Your task to perform on an android device: all mails in gmail Image 0: 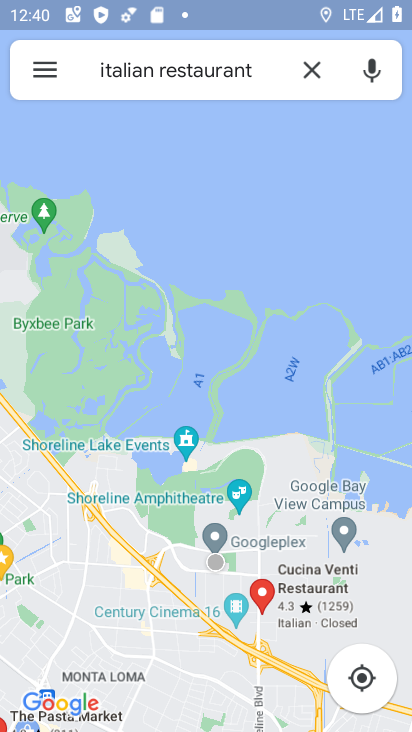
Step 0: drag from (186, 623) to (158, 281)
Your task to perform on an android device: all mails in gmail Image 1: 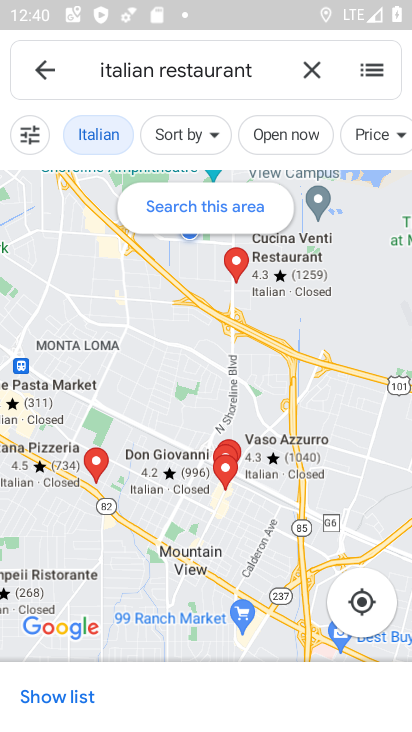
Step 1: press home button
Your task to perform on an android device: all mails in gmail Image 2: 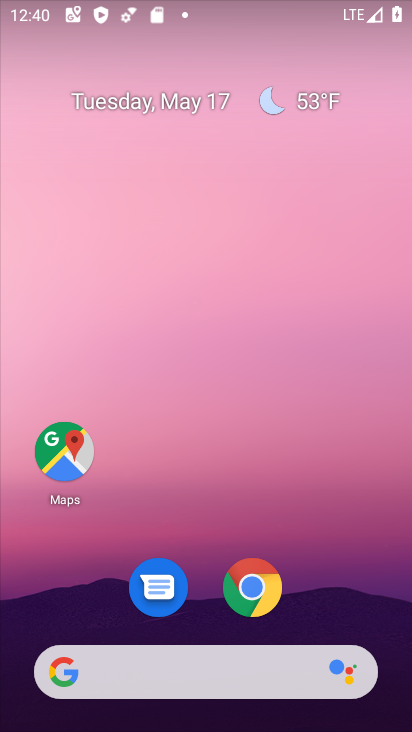
Step 2: drag from (235, 634) to (175, 11)
Your task to perform on an android device: all mails in gmail Image 3: 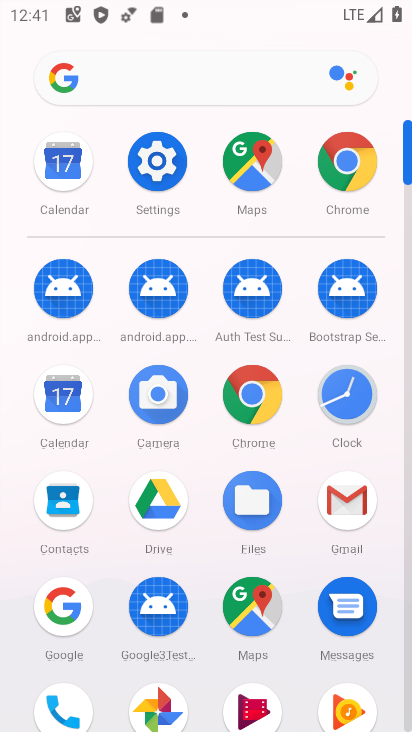
Step 3: click (346, 501)
Your task to perform on an android device: all mails in gmail Image 4: 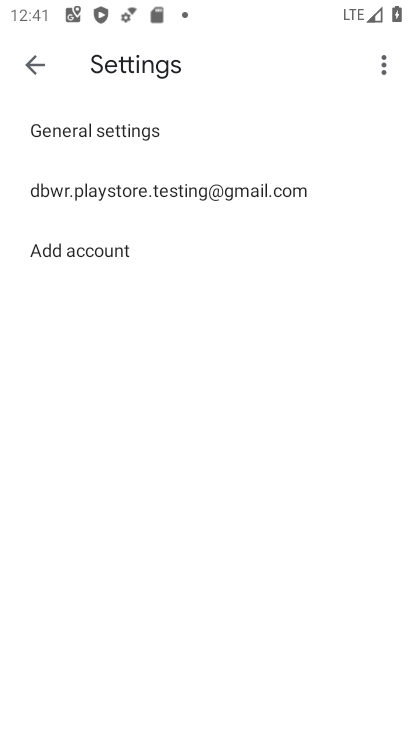
Step 4: click (19, 58)
Your task to perform on an android device: all mails in gmail Image 5: 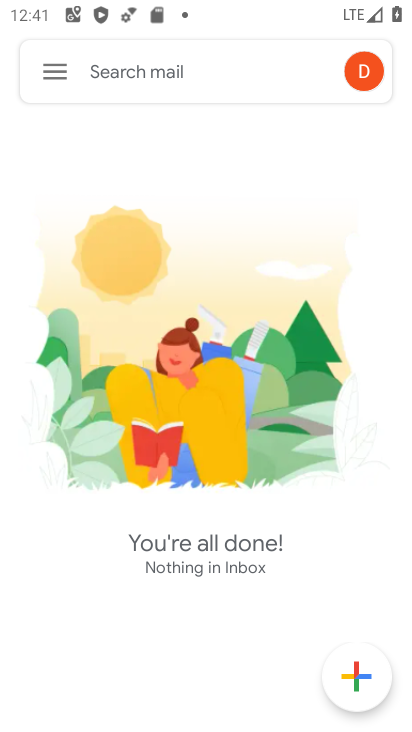
Step 5: click (35, 67)
Your task to perform on an android device: all mails in gmail Image 6: 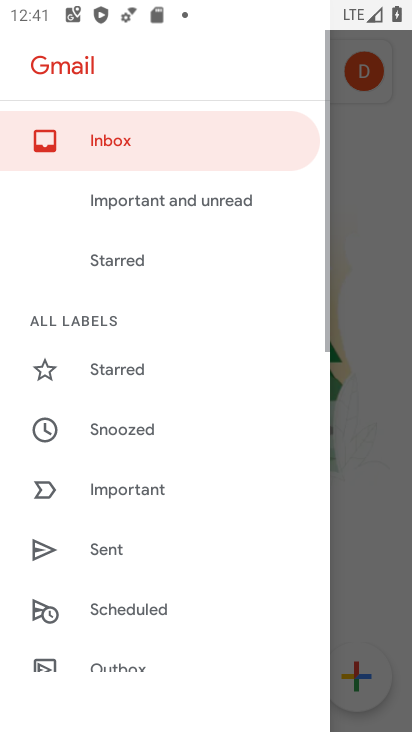
Step 6: drag from (139, 533) to (124, 139)
Your task to perform on an android device: all mails in gmail Image 7: 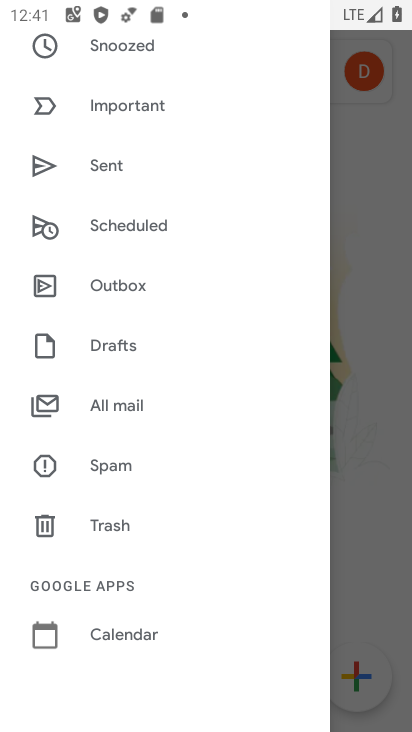
Step 7: click (122, 414)
Your task to perform on an android device: all mails in gmail Image 8: 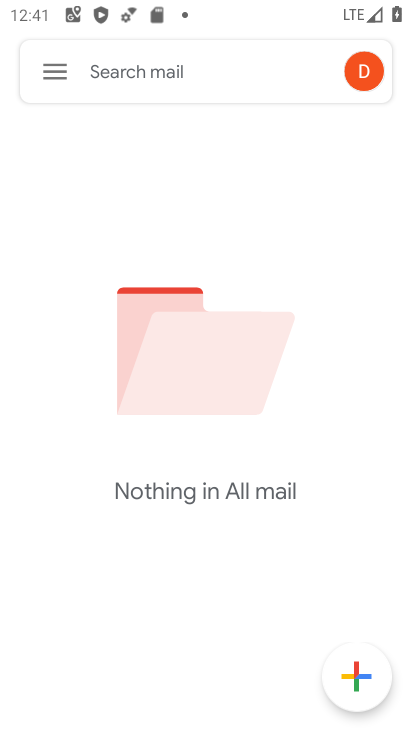
Step 8: task complete